Your task to perform on an android device: turn on wifi Image 0: 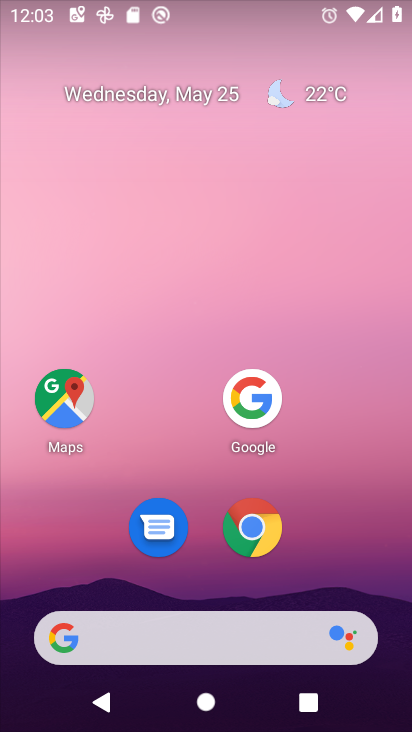
Step 0: drag from (196, 658) to (256, 34)
Your task to perform on an android device: turn on wifi Image 1: 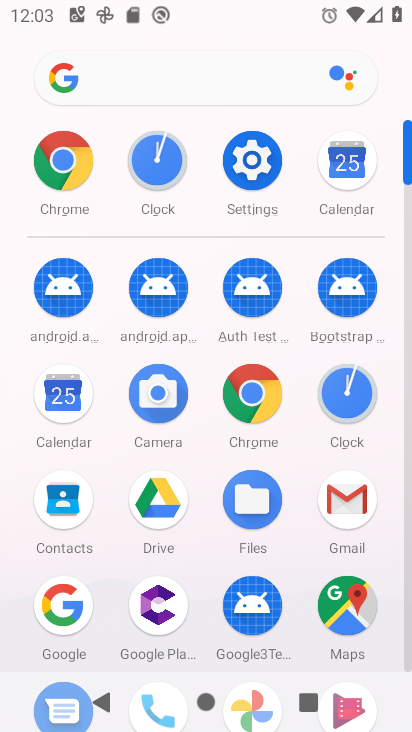
Step 1: click (250, 144)
Your task to perform on an android device: turn on wifi Image 2: 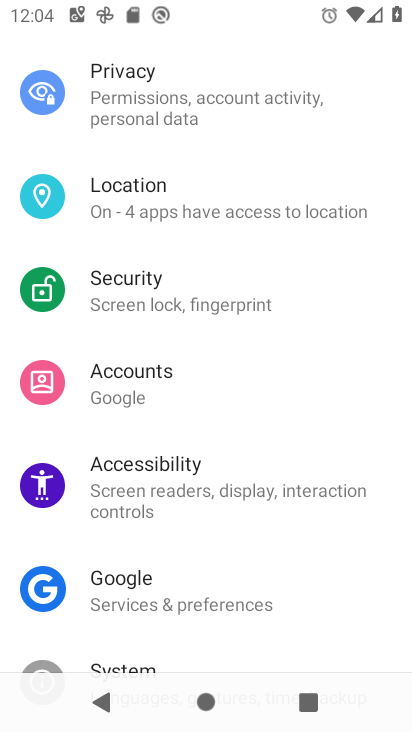
Step 2: drag from (286, 162) to (210, 628)
Your task to perform on an android device: turn on wifi Image 3: 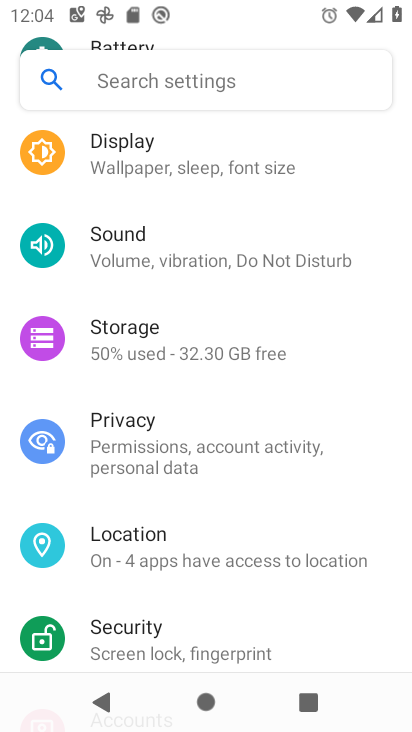
Step 3: drag from (285, 216) to (216, 673)
Your task to perform on an android device: turn on wifi Image 4: 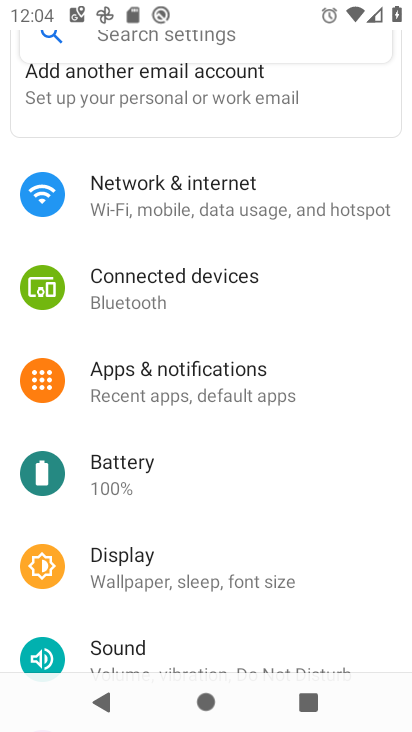
Step 4: click (220, 198)
Your task to perform on an android device: turn on wifi Image 5: 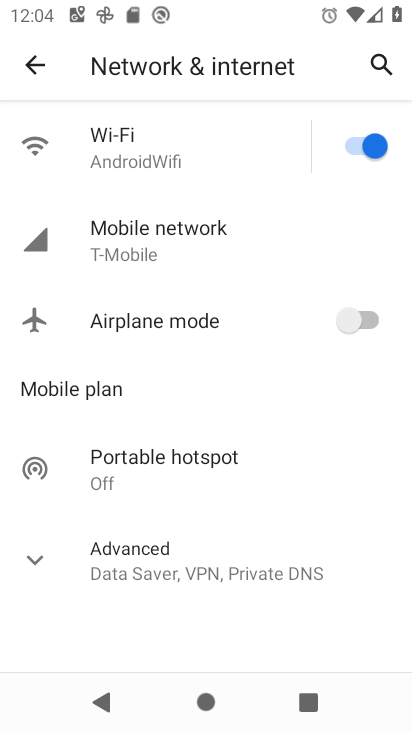
Step 5: task complete